Your task to perform on an android device: When is my next appointment? Image 0: 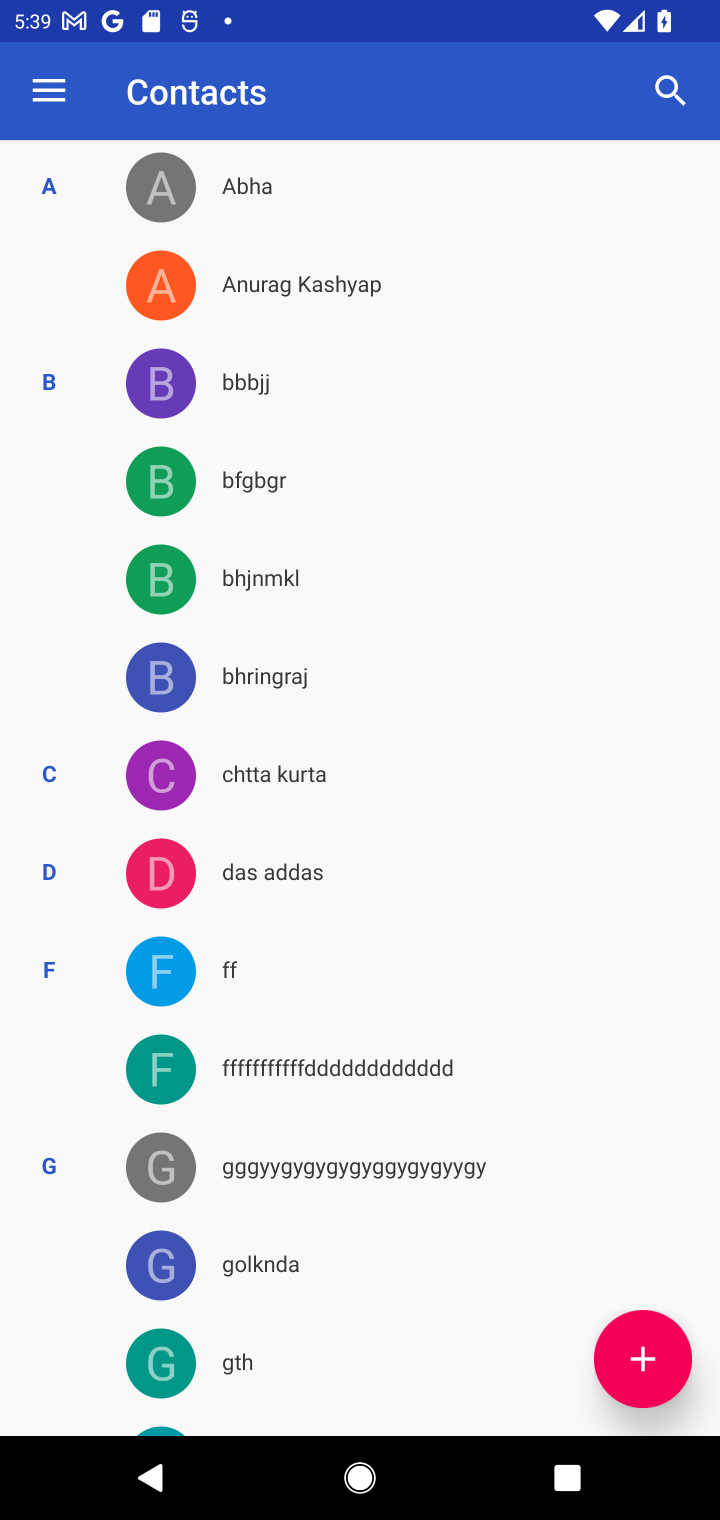
Step 0: press home button
Your task to perform on an android device: When is my next appointment? Image 1: 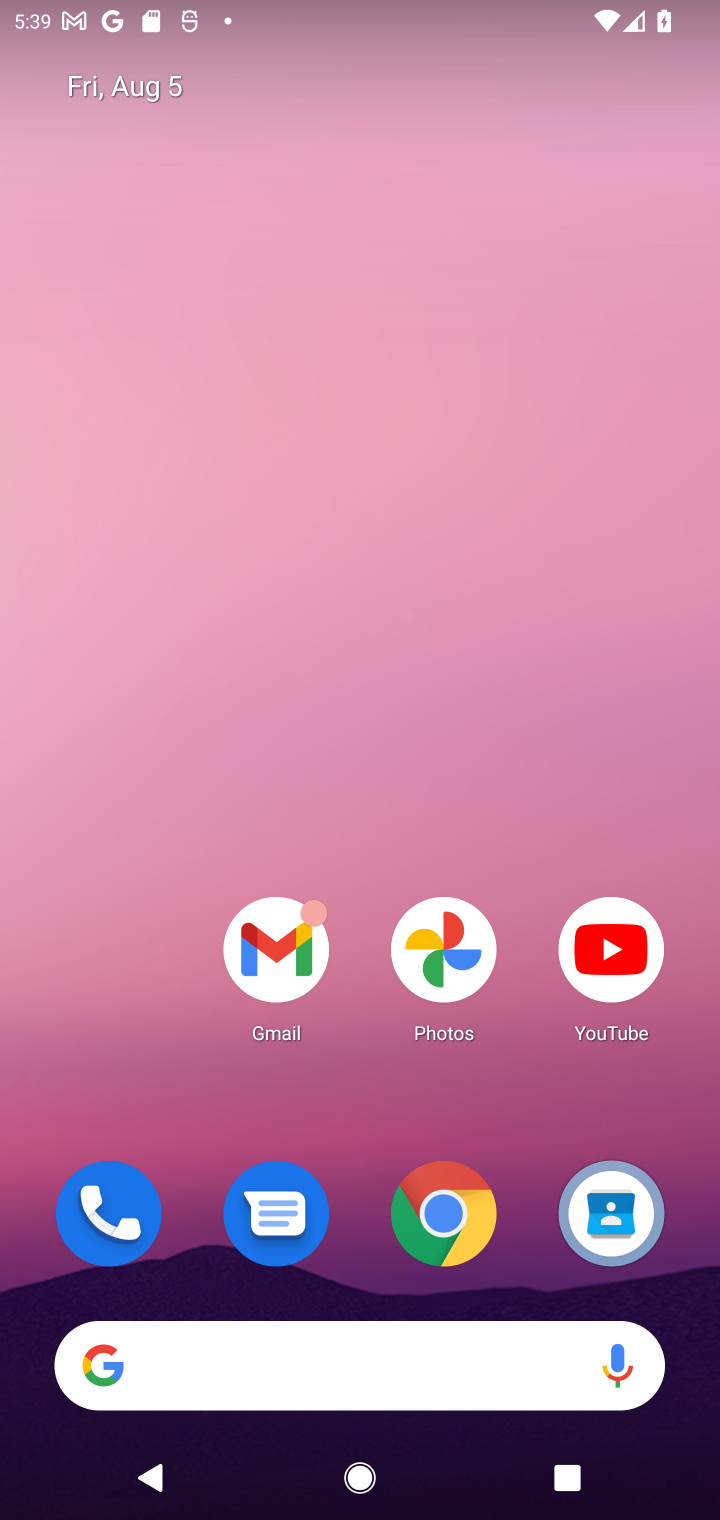
Step 1: drag from (357, 1307) to (288, 86)
Your task to perform on an android device: When is my next appointment? Image 2: 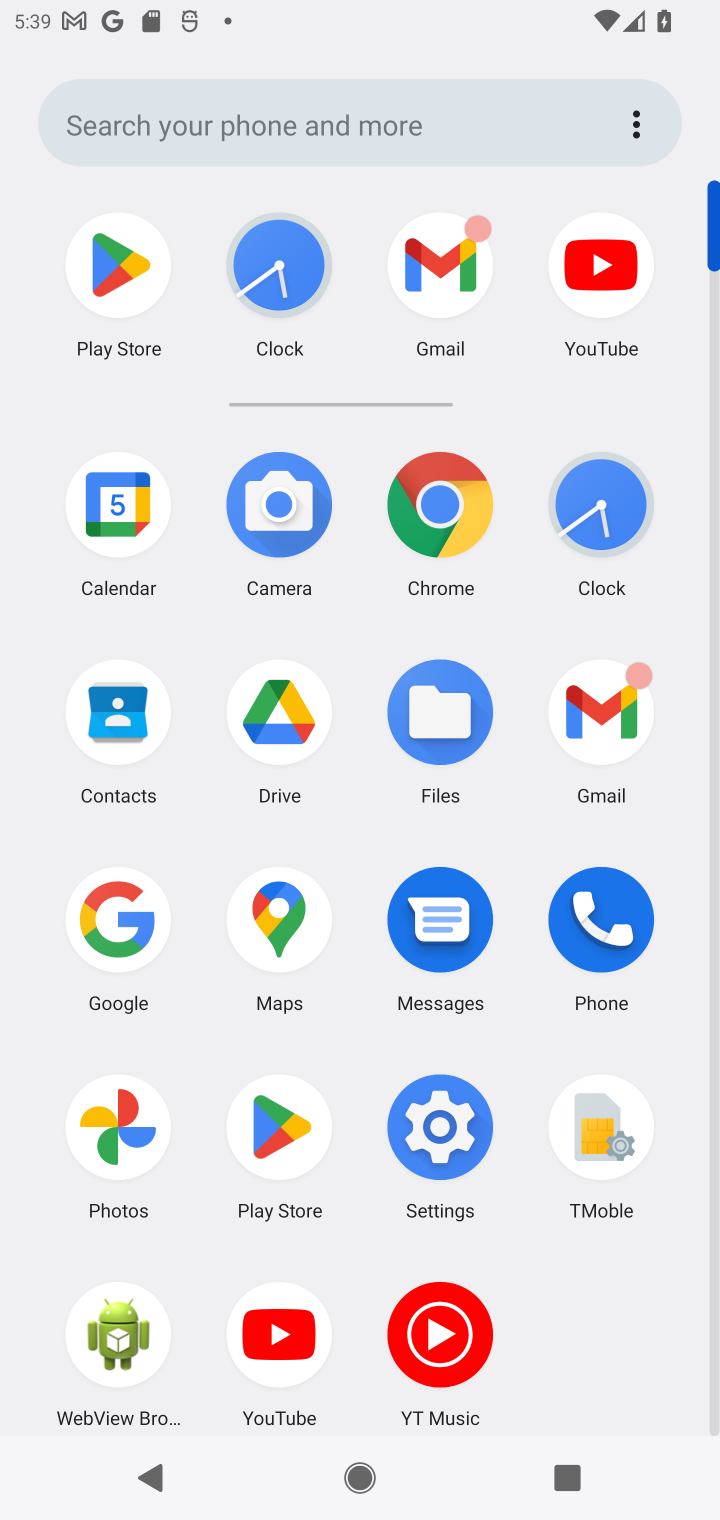
Step 2: click (414, 1112)
Your task to perform on an android device: When is my next appointment? Image 3: 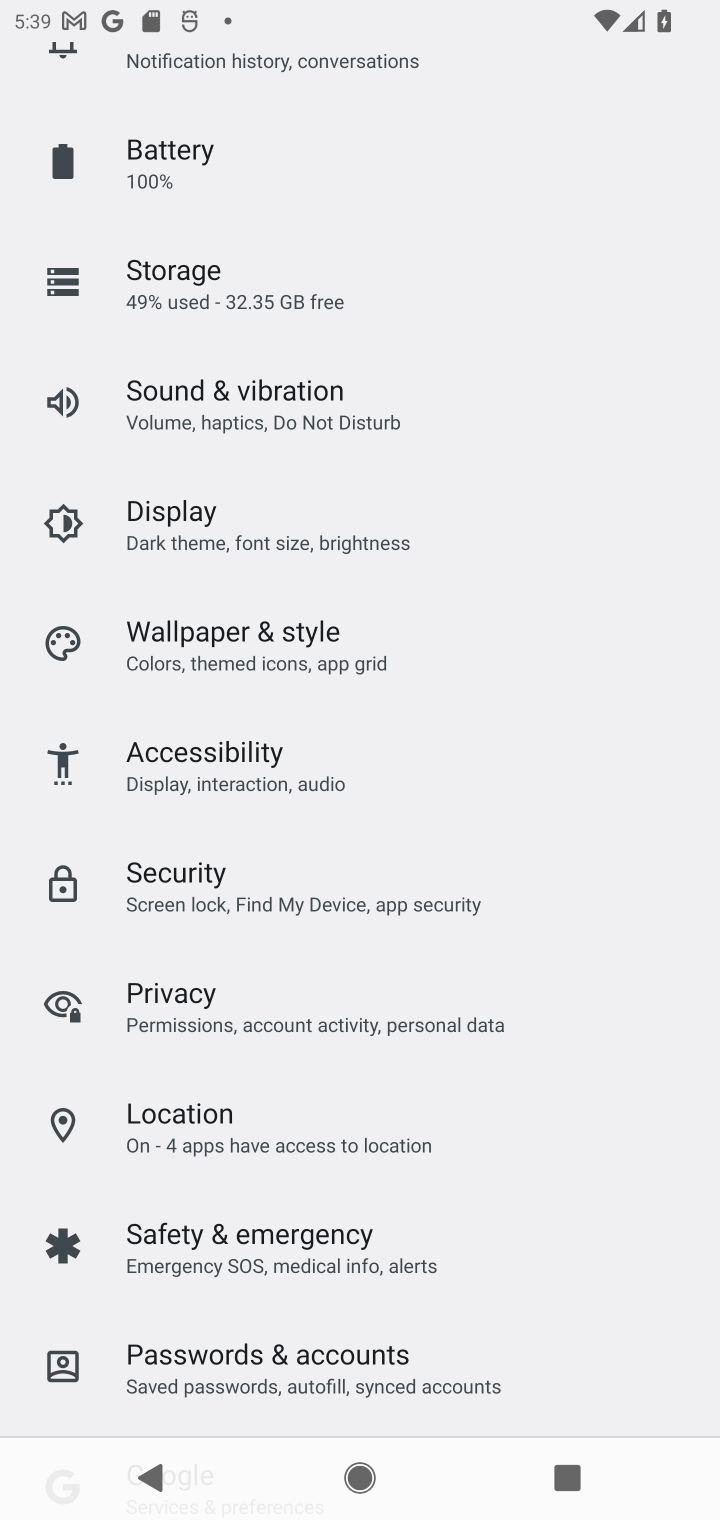
Step 3: press home button
Your task to perform on an android device: When is my next appointment? Image 4: 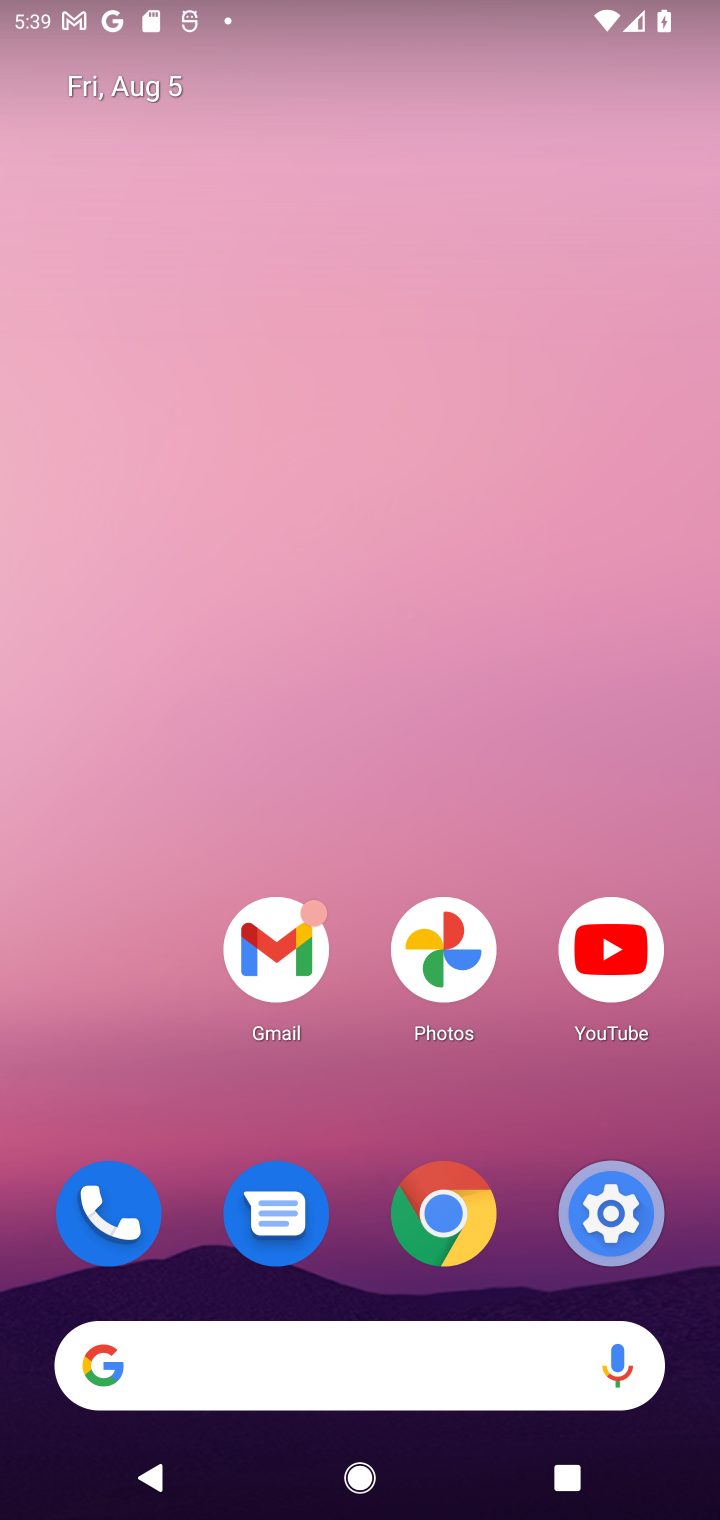
Step 4: drag from (361, 1306) to (349, 157)
Your task to perform on an android device: When is my next appointment? Image 5: 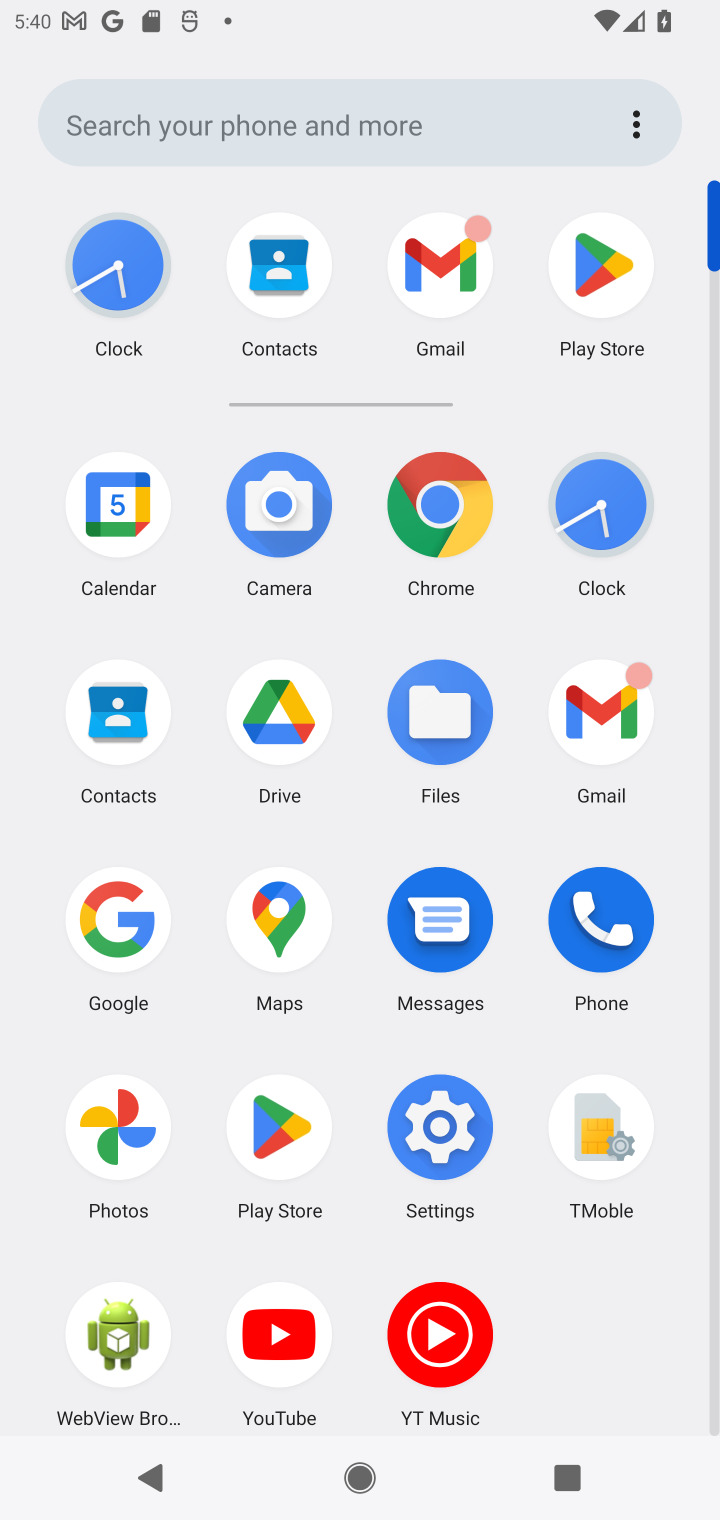
Step 5: click (140, 571)
Your task to perform on an android device: When is my next appointment? Image 6: 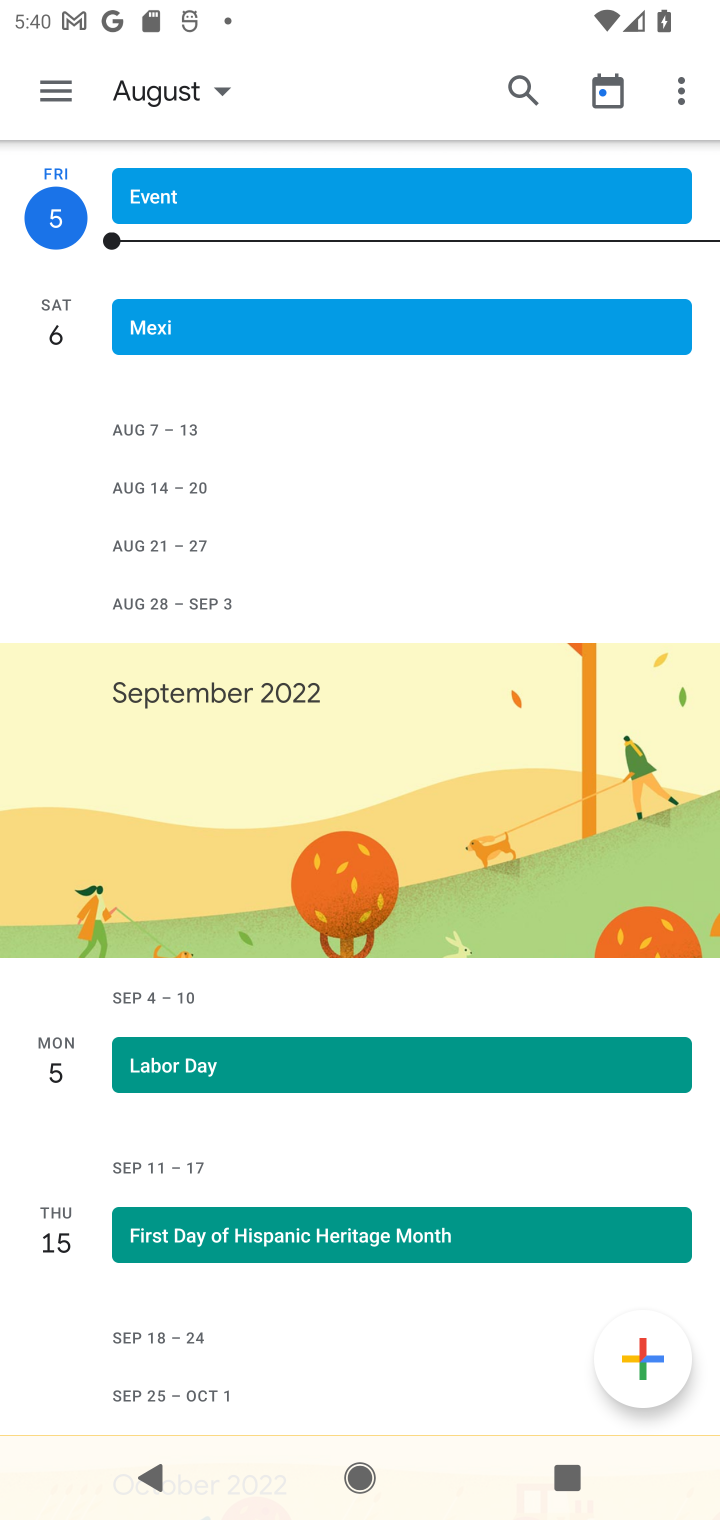
Step 6: task complete